Your task to perform on an android device: Open Google Chrome and open the bookmarks view Image 0: 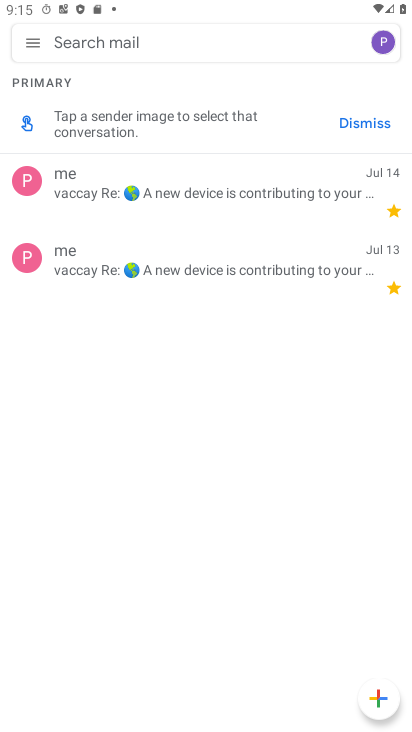
Step 0: press back button
Your task to perform on an android device: Open Google Chrome and open the bookmarks view Image 1: 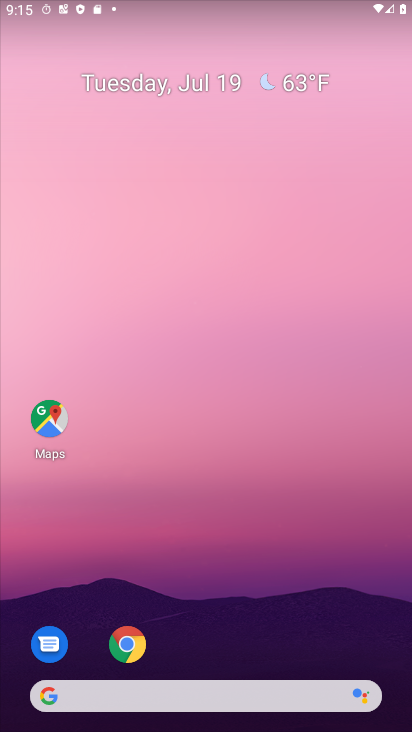
Step 1: drag from (124, 353) to (71, 112)
Your task to perform on an android device: Open Google Chrome and open the bookmarks view Image 2: 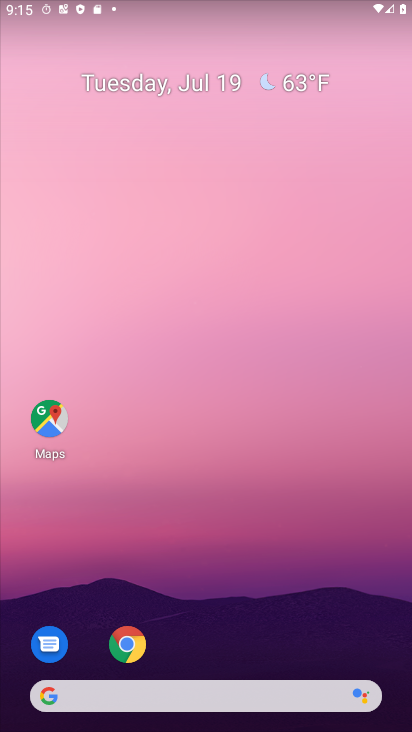
Step 2: drag from (181, 659) to (141, 197)
Your task to perform on an android device: Open Google Chrome and open the bookmarks view Image 3: 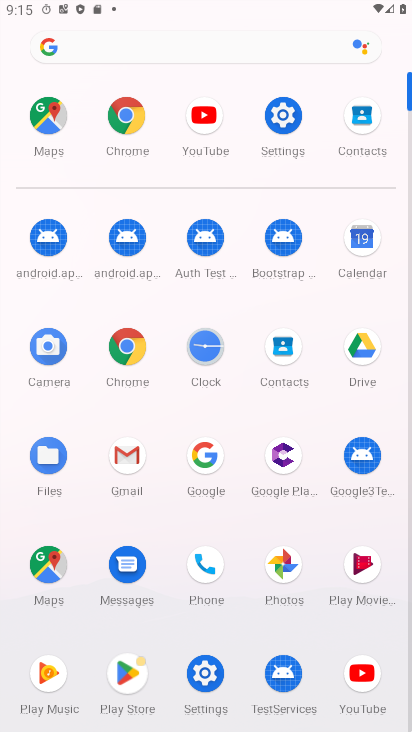
Step 3: click (135, 115)
Your task to perform on an android device: Open Google Chrome and open the bookmarks view Image 4: 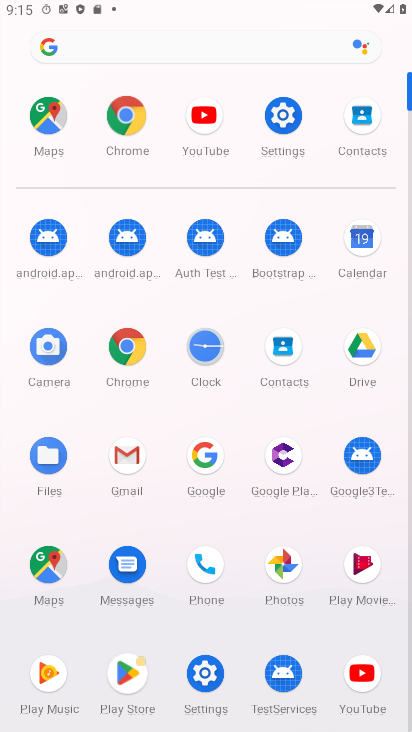
Step 4: click (136, 115)
Your task to perform on an android device: Open Google Chrome and open the bookmarks view Image 5: 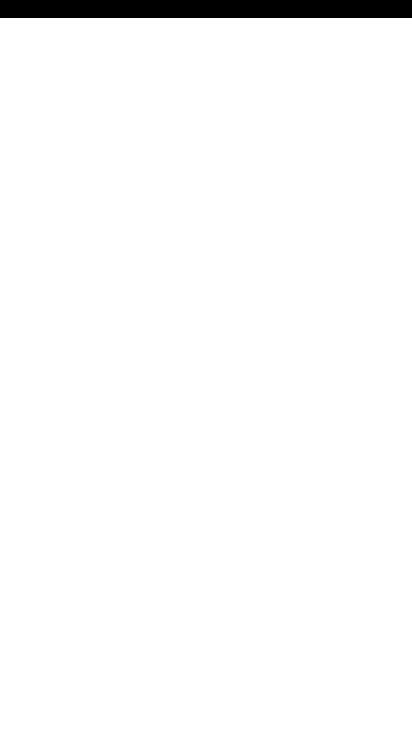
Step 5: click (137, 115)
Your task to perform on an android device: Open Google Chrome and open the bookmarks view Image 6: 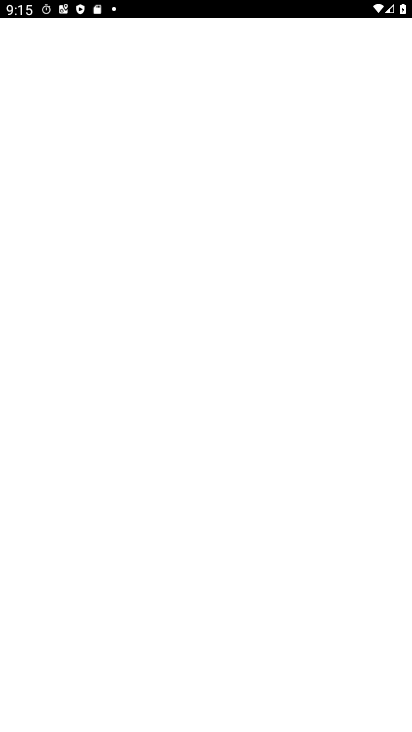
Step 6: click (139, 115)
Your task to perform on an android device: Open Google Chrome and open the bookmarks view Image 7: 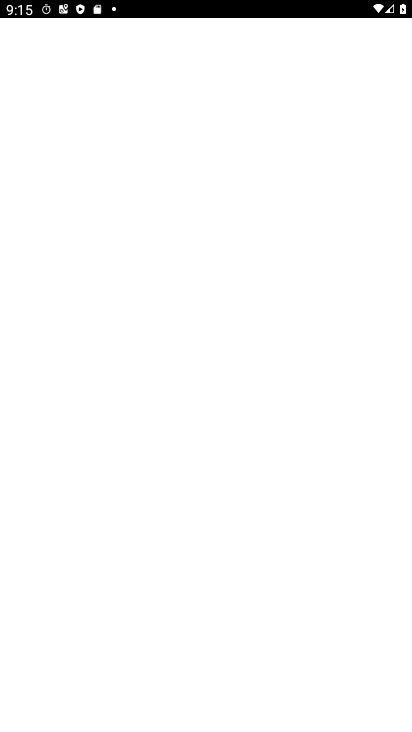
Step 7: click (139, 115)
Your task to perform on an android device: Open Google Chrome and open the bookmarks view Image 8: 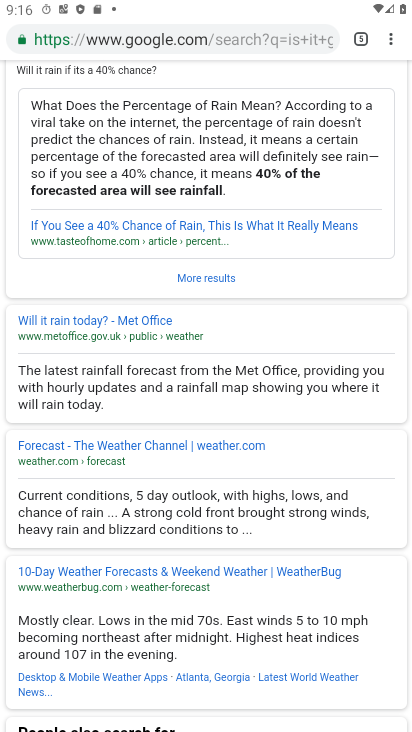
Step 8: drag from (387, 43) to (272, 142)
Your task to perform on an android device: Open Google Chrome and open the bookmarks view Image 9: 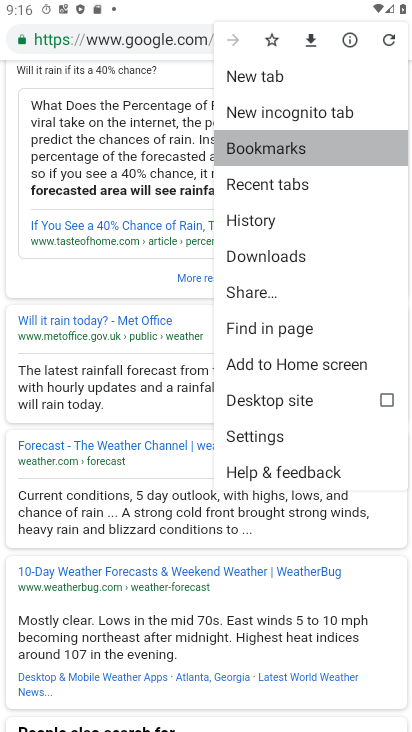
Step 9: click (273, 143)
Your task to perform on an android device: Open Google Chrome and open the bookmarks view Image 10: 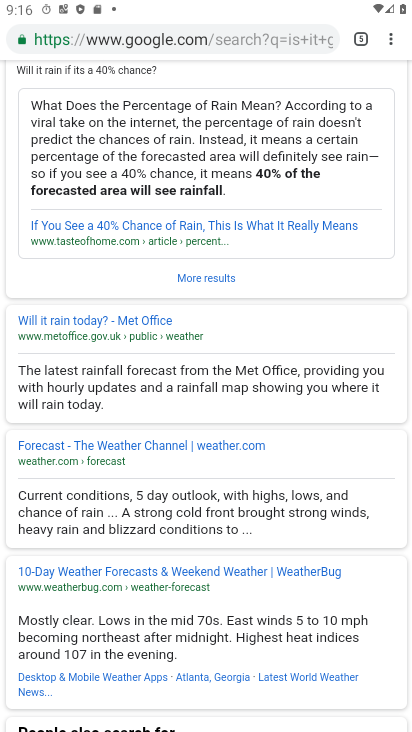
Step 10: click (277, 139)
Your task to perform on an android device: Open Google Chrome and open the bookmarks view Image 11: 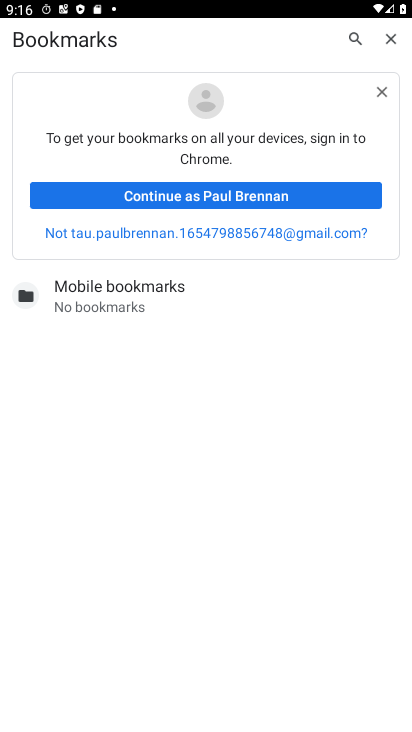
Step 11: task complete